Your task to perform on an android device: open a bookmark in the chrome app Image 0: 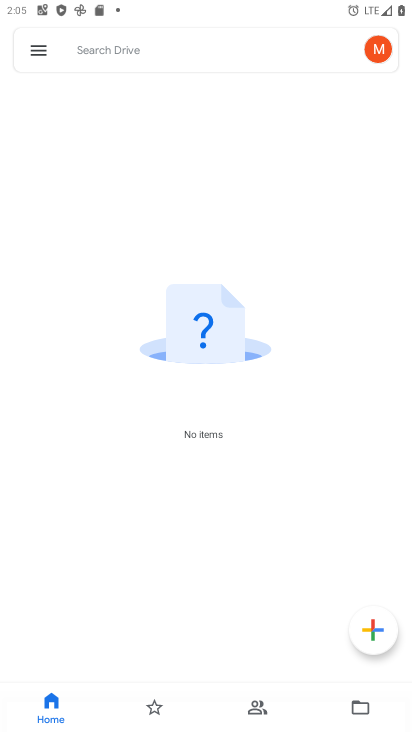
Step 0: press home button
Your task to perform on an android device: open a bookmark in the chrome app Image 1: 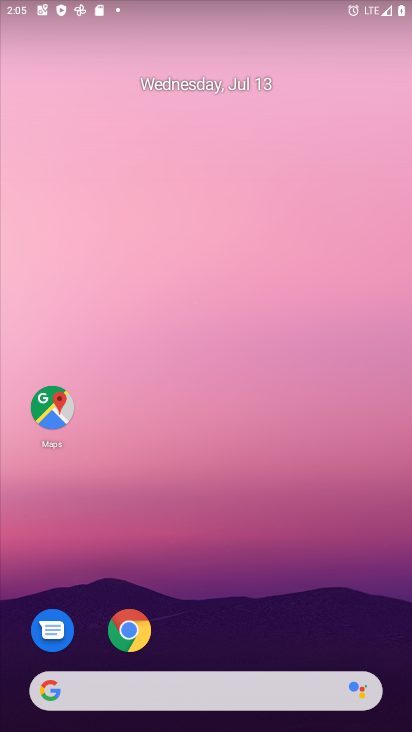
Step 1: drag from (396, 693) to (183, 135)
Your task to perform on an android device: open a bookmark in the chrome app Image 2: 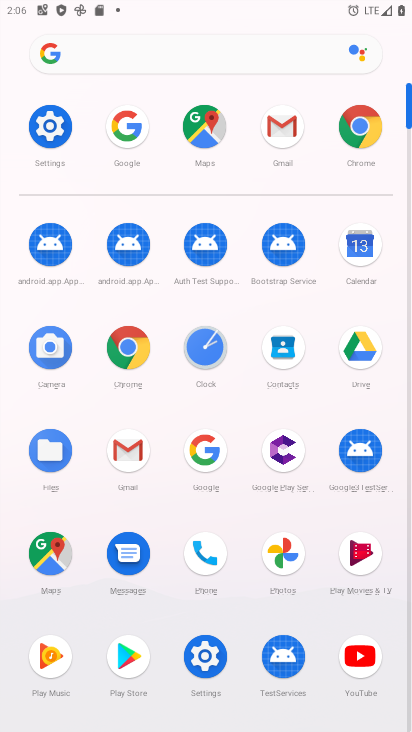
Step 2: click (364, 121)
Your task to perform on an android device: open a bookmark in the chrome app Image 3: 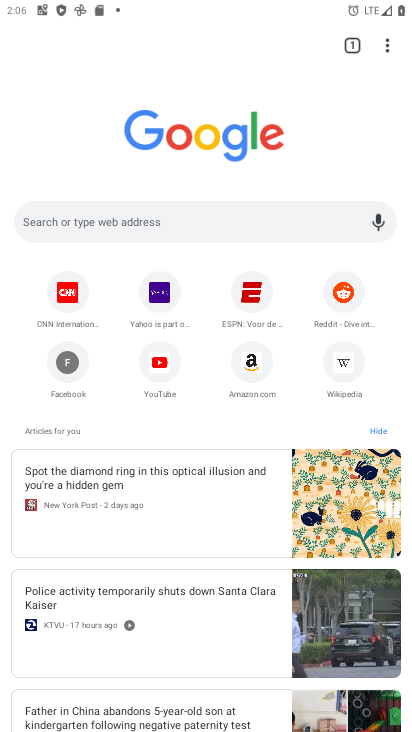
Step 3: click (383, 42)
Your task to perform on an android device: open a bookmark in the chrome app Image 4: 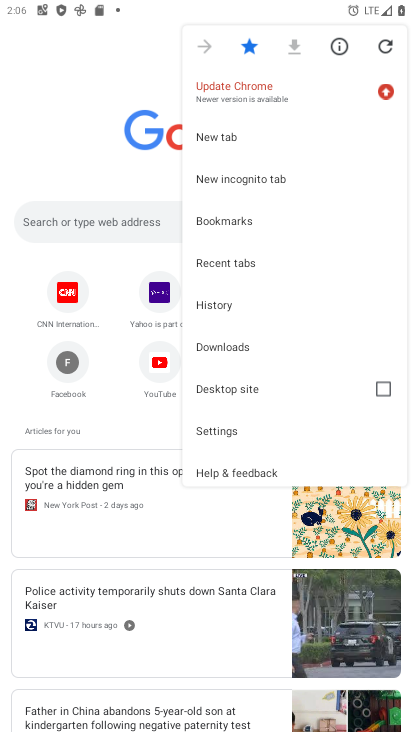
Step 4: click (220, 227)
Your task to perform on an android device: open a bookmark in the chrome app Image 5: 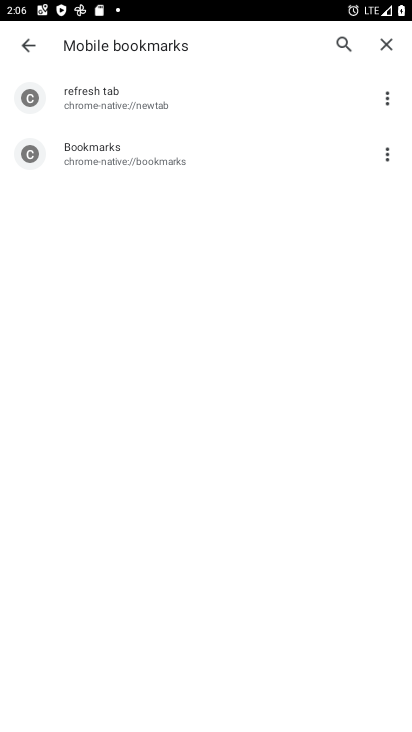
Step 5: task complete